Your task to perform on an android device: Open the phone app and click the voicemail tab. Image 0: 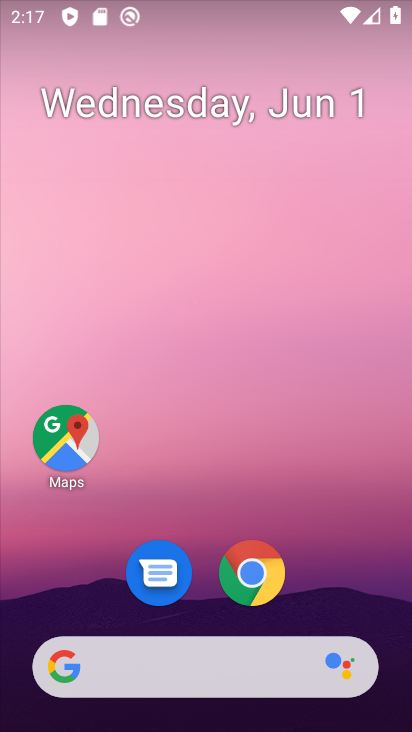
Step 0: drag from (206, 618) to (262, 144)
Your task to perform on an android device: Open the phone app and click the voicemail tab. Image 1: 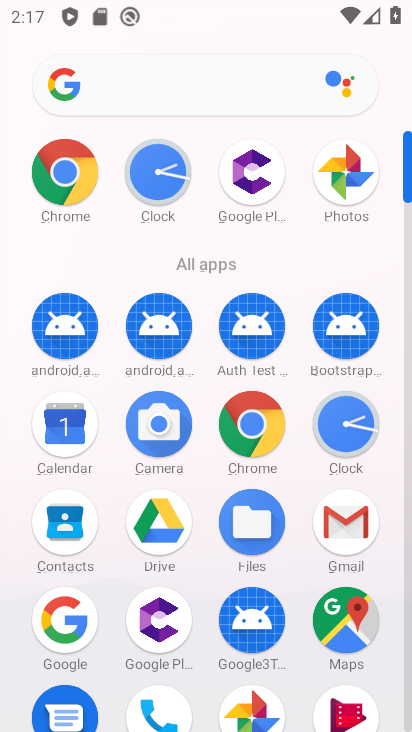
Step 1: drag from (105, 627) to (158, 319)
Your task to perform on an android device: Open the phone app and click the voicemail tab. Image 2: 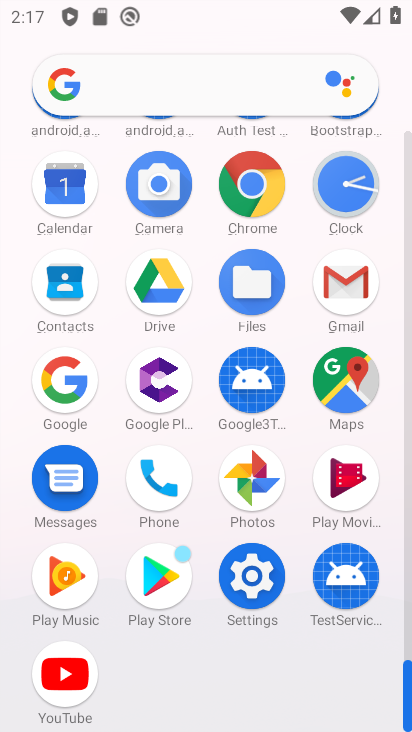
Step 2: click (158, 501)
Your task to perform on an android device: Open the phone app and click the voicemail tab. Image 3: 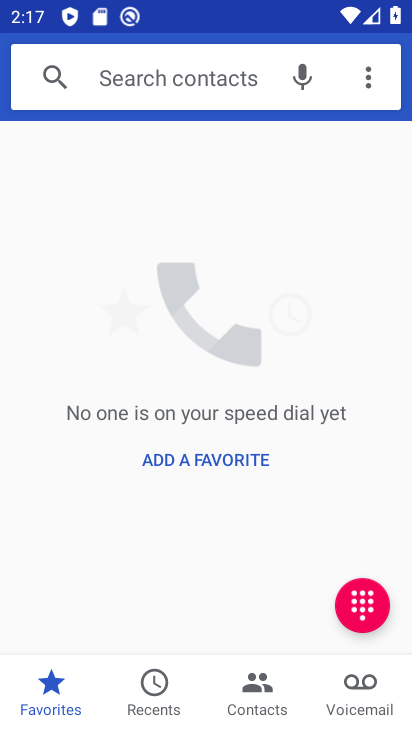
Step 3: click (348, 707)
Your task to perform on an android device: Open the phone app and click the voicemail tab. Image 4: 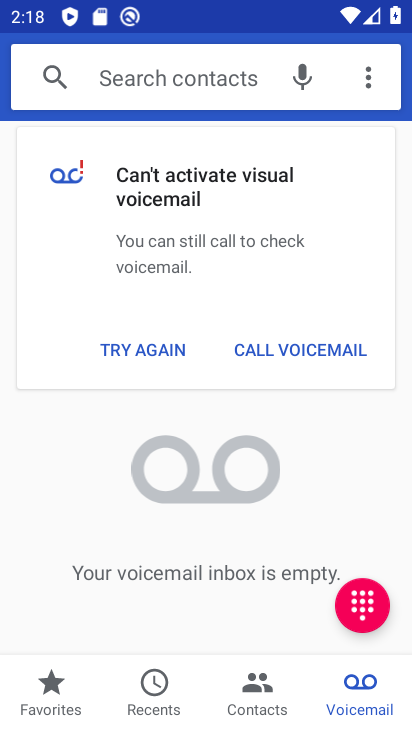
Step 4: task complete